Your task to perform on an android device: clear all cookies in the chrome app Image 0: 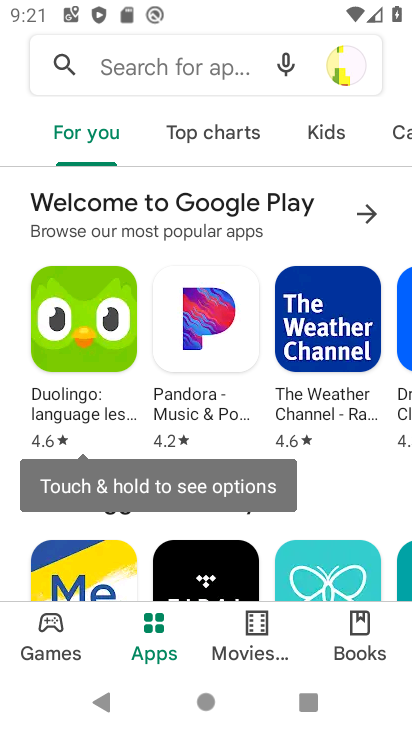
Step 0: press home button
Your task to perform on an android device: clear all cookies in the chrome app Image 1: 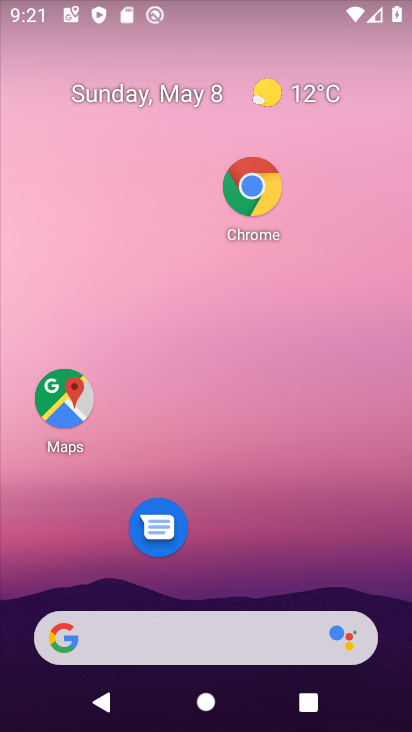
Step 1: drag from (206, 502) to (243, 346)
Your task to perform on an android device: clear all cookies in the chrome app Image 2: 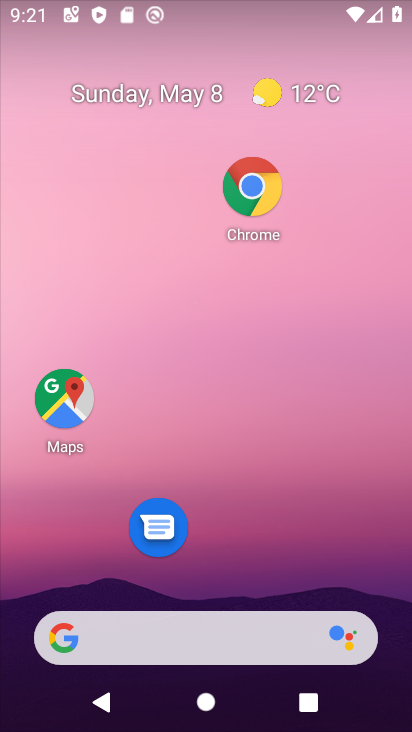
Step 2: drag from (247, 540) to (296, 153)
Your task to perform on an android device: clear all cookies in the chrome app Image 3: 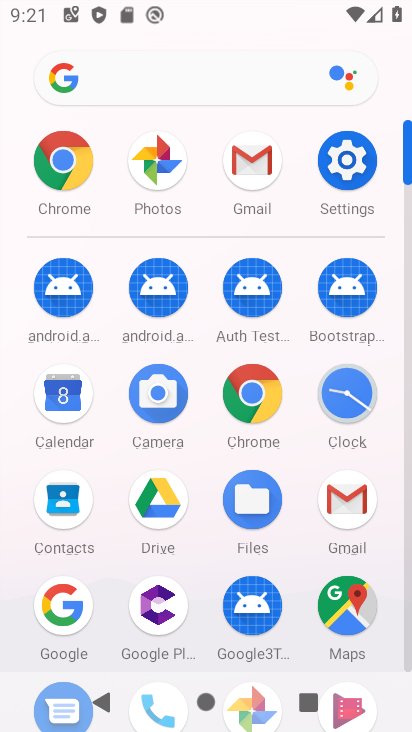
Step 3: click (237, 397)
Your task to perform on an android device: clear all cookies in the chrome app Image 4: 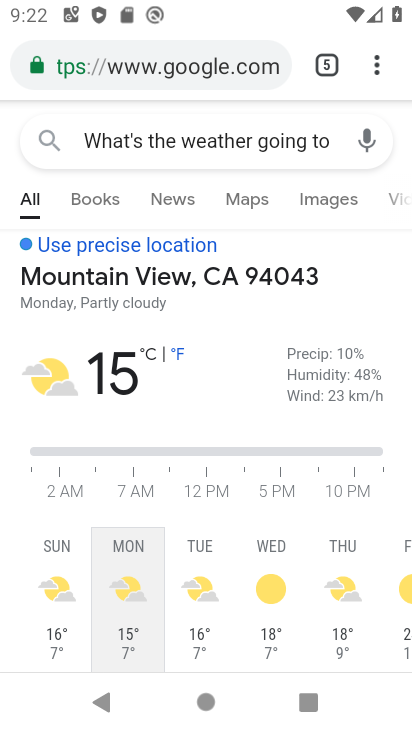
Step 4: click (360, 56)
Your task to perform on an android device: clear all cookies in the chrome app Image 5: 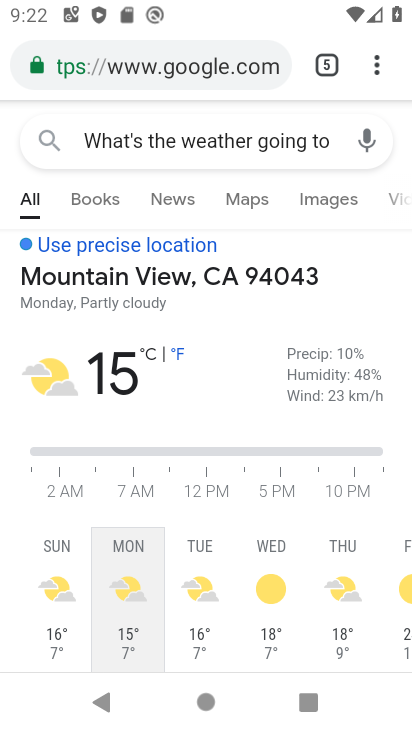
Step 5: click (370, 63)
Your task to perform on an android device: clear all cookies in the chrome app Image 6: 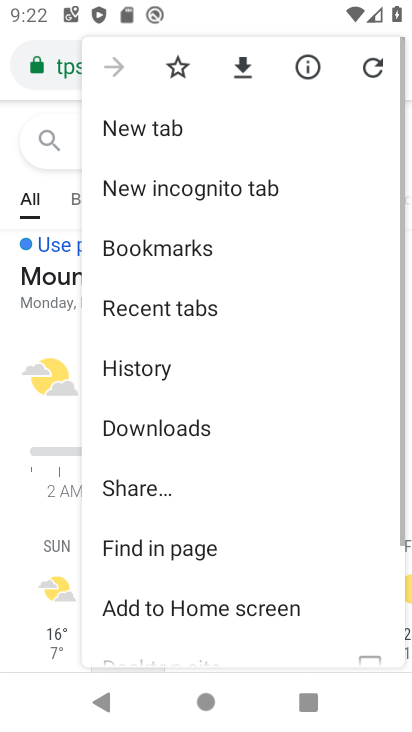
Step 6: drag from (174, 521) to (204, 208)
Your task to perform on an android device: clear all cookies in the chrome app Image 7: 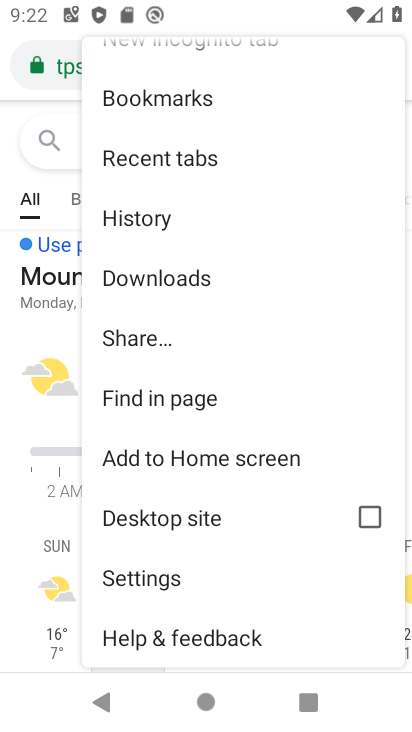
Step 7: click (155, 580)
Your task to perform on an android device: clear all cookies in the chrome app Image 8: 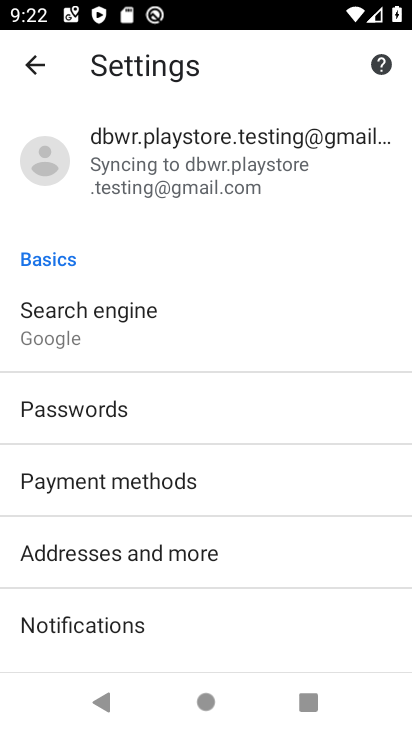
Step 8: drag from (137, 596) to (188, 279)
Your task to perform on an android device: clear all cookies in the chrome app Image 9: 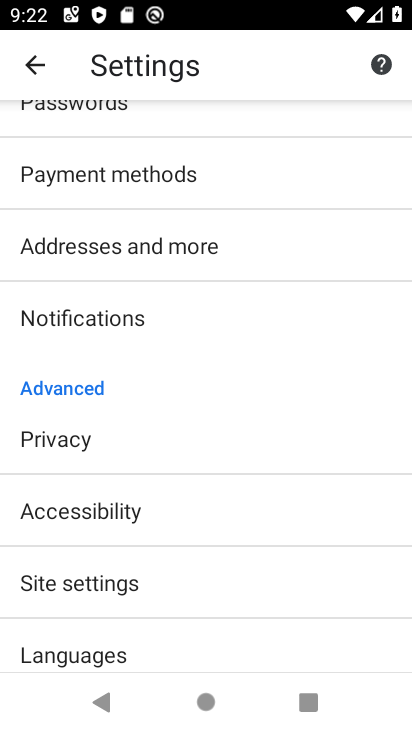
Step 9: click (107, 438)
Your task to perform on an android device: clear all cookies in the chrome app Image 10: 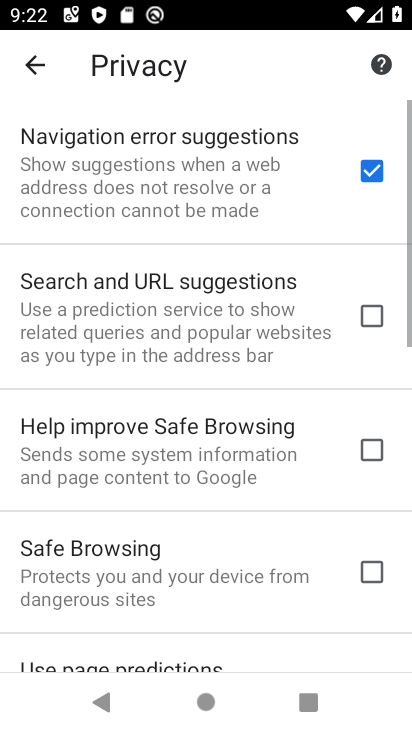
Step 10: drag from (224, 623) to (267, 289)
Your task to perform on an android device: clear all cookies in the chrome app Image 11: 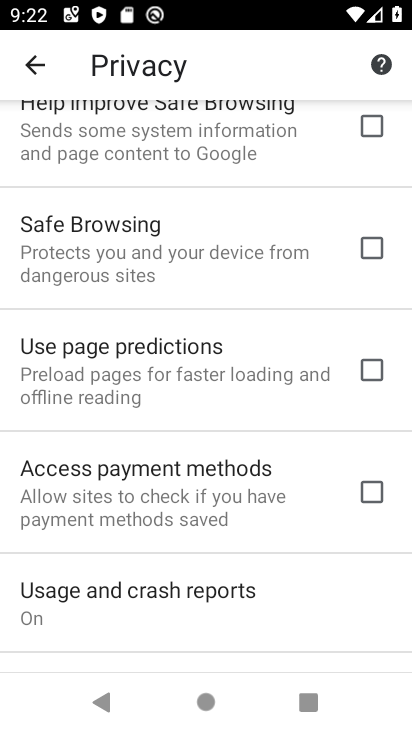
Step 11: drag from (196, 614) to (235, 242)
Your task to perform on an android device: clear all cookies in the chrome app Image 12: 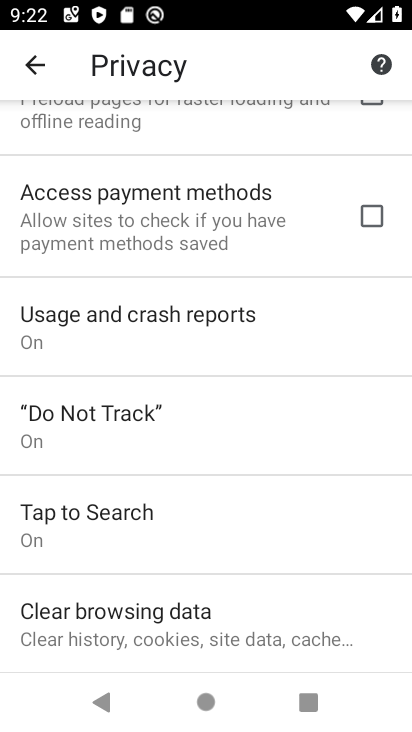
Step 12: click (167, 627)
Your task to perform on an android device: clear all cookies in the chrome app Image 13: 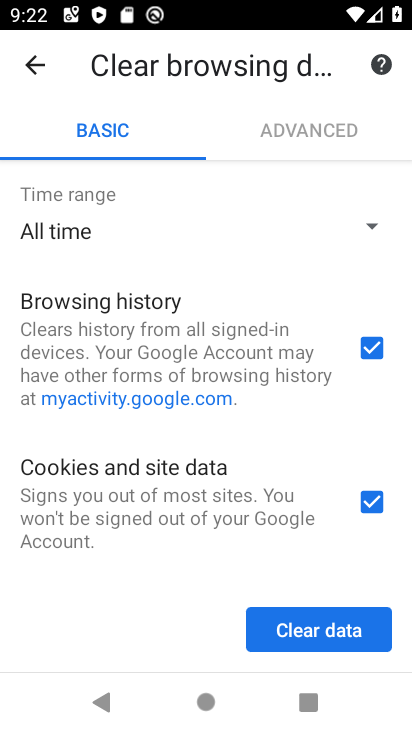
Step 13: click (316, 621)
Your task to perform on an android device: clear all cookies in the chrome app Image 14: 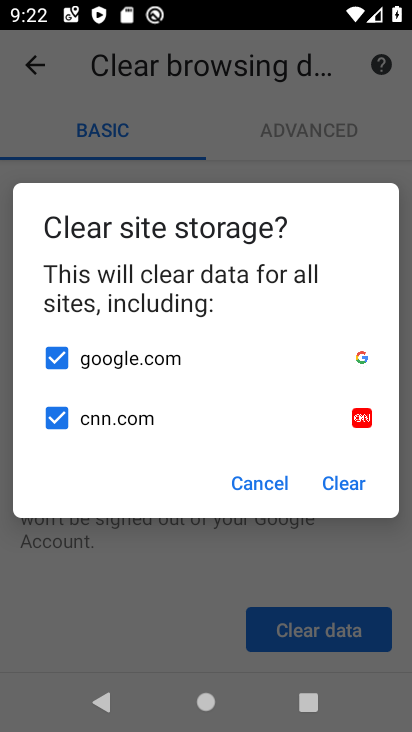
Step 14: click (319, 480)
Your task to perform on an android device: clear all cookies in the chrome app Image 15: 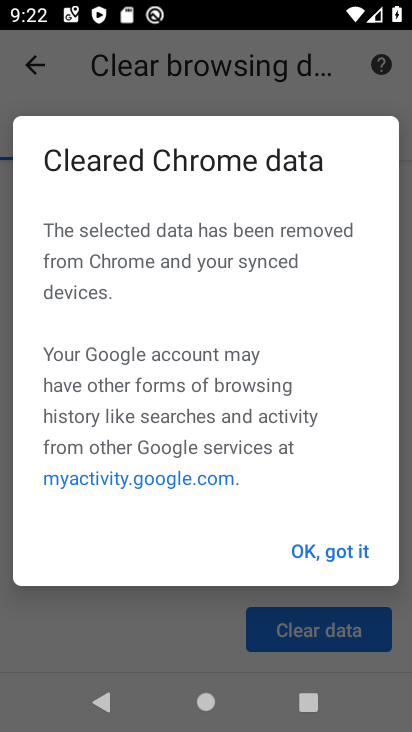
Step 15: click (320, 552)
Your task to perform on an android device: clear all cookies in the chrome app Image 16: 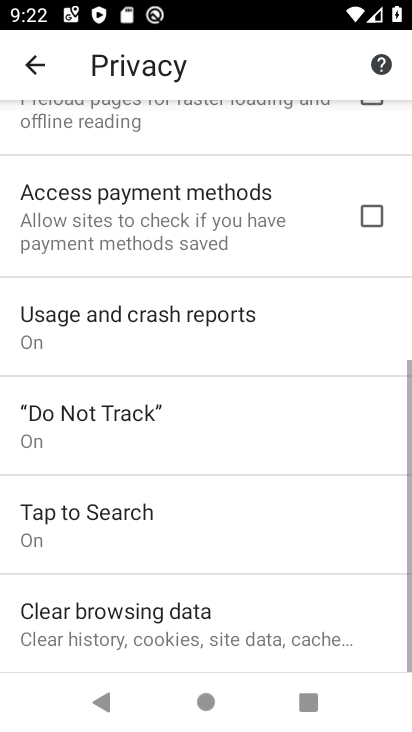
Step 16: task complete